Your task to perform on an android device: find snoozed emails in the gmail app Image 0: 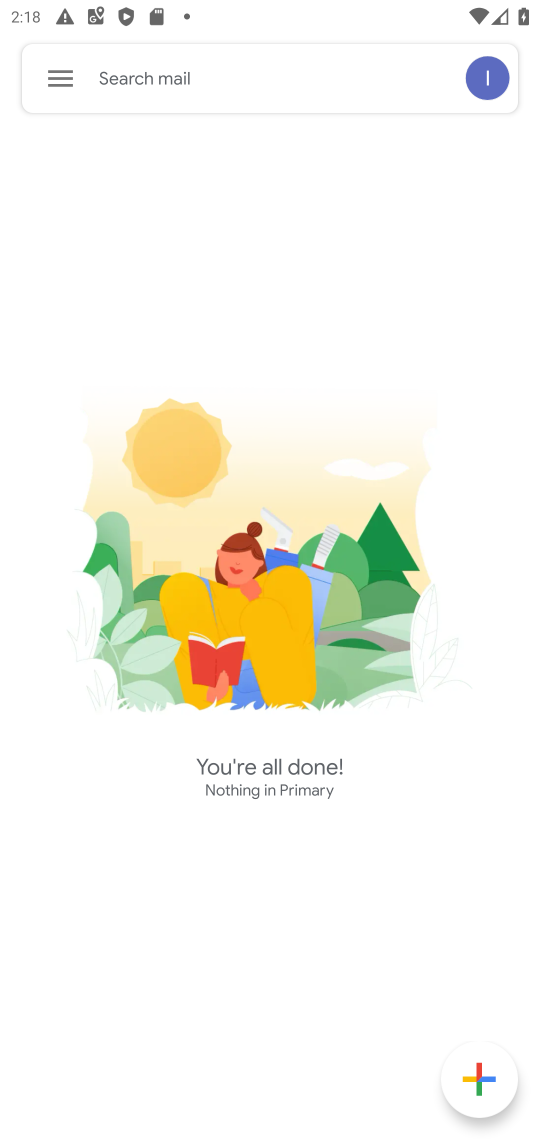
Step 0: press home button
Your task to perform on an android device: find snoozed emails in the gmail app Image 1: 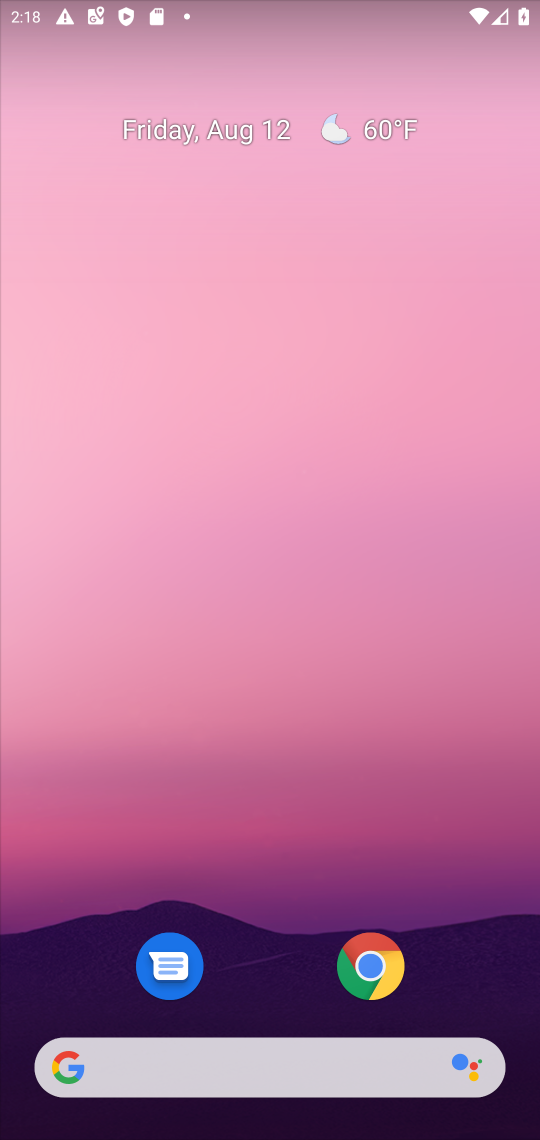
Step 1: drag from (303, 874) to (315, 0)
Your task to perform on an android device: find snoozed emails in the gmail app Image 2: 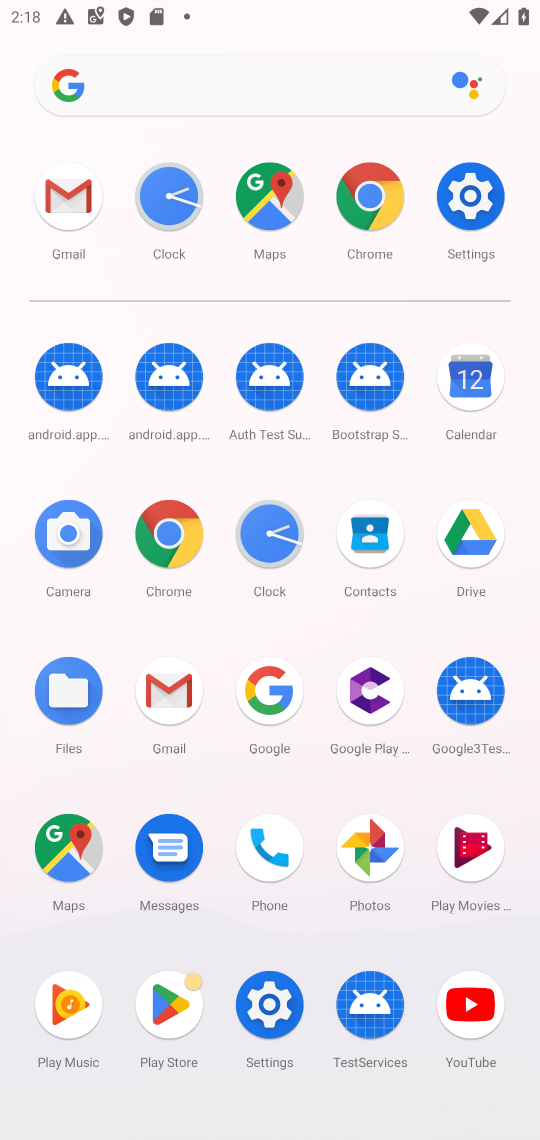
Step 2: click (144, 691)
Your task to perform on an android device: find snoozed emails in the gmail app Image 3: 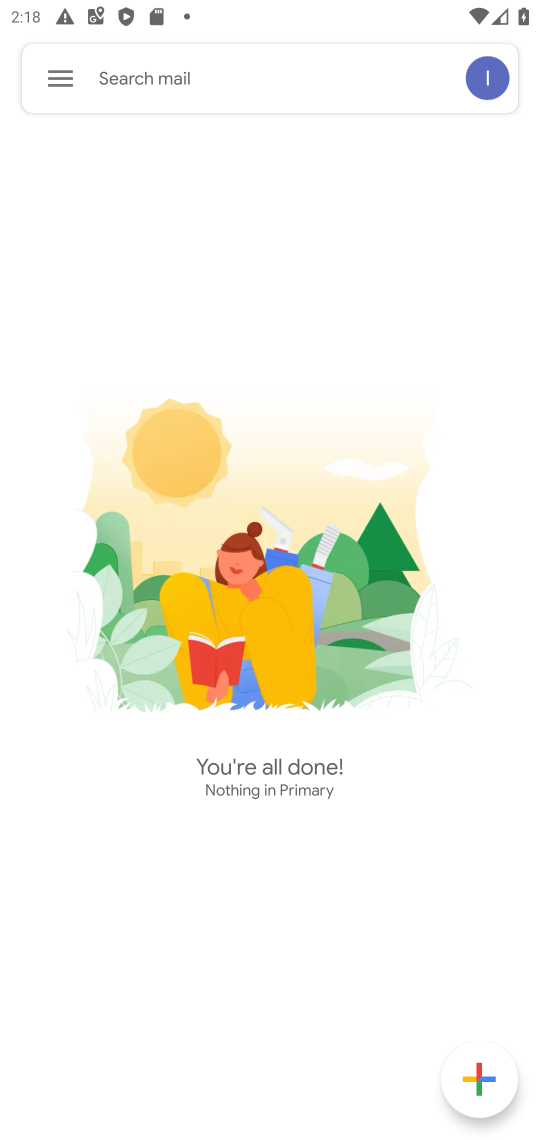
Step 3: click (63, 62)
Your task to perform on an android device: find snoozed emails in the gmail app Image 4: 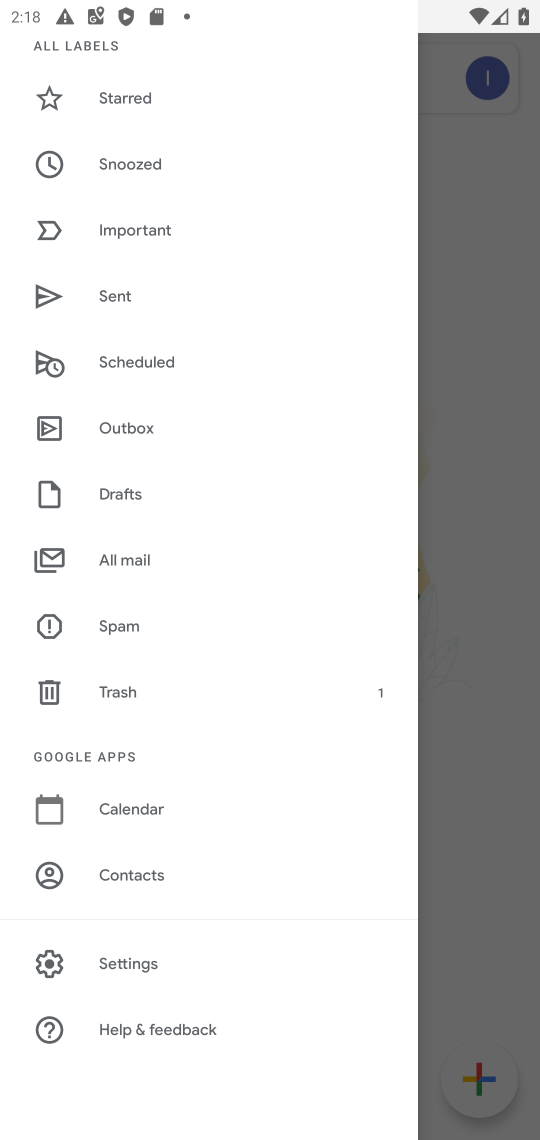
Step 4: drag from (113, 321) to (167, 857)
Your task to perform on an android device: find snoozed emails in the gmail app Image 5: 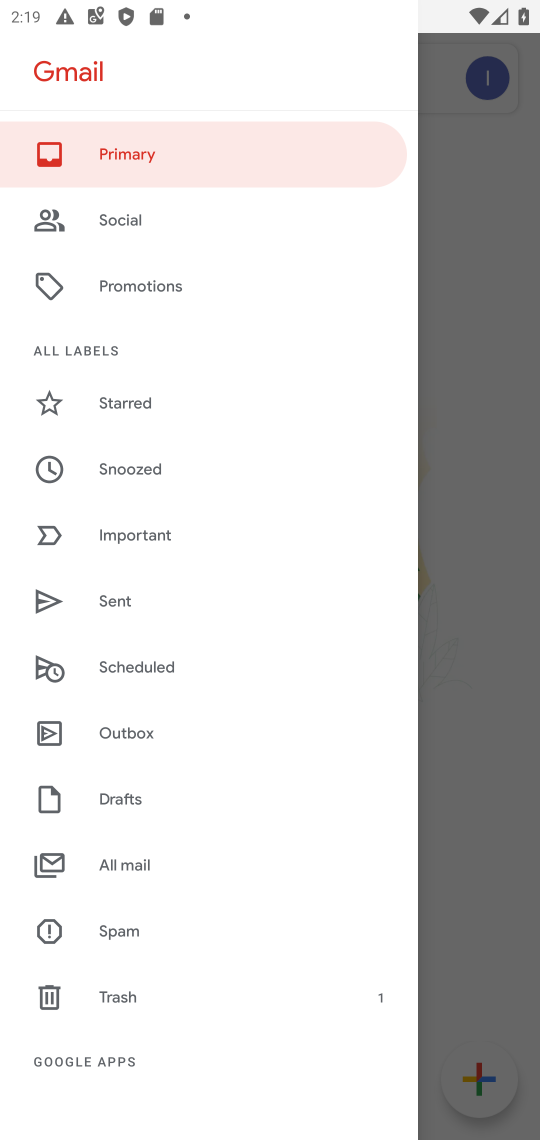
Step 5: click (117, 400)
Your task to perform on an android device: find snoozed emails in the gmail app Image 6: 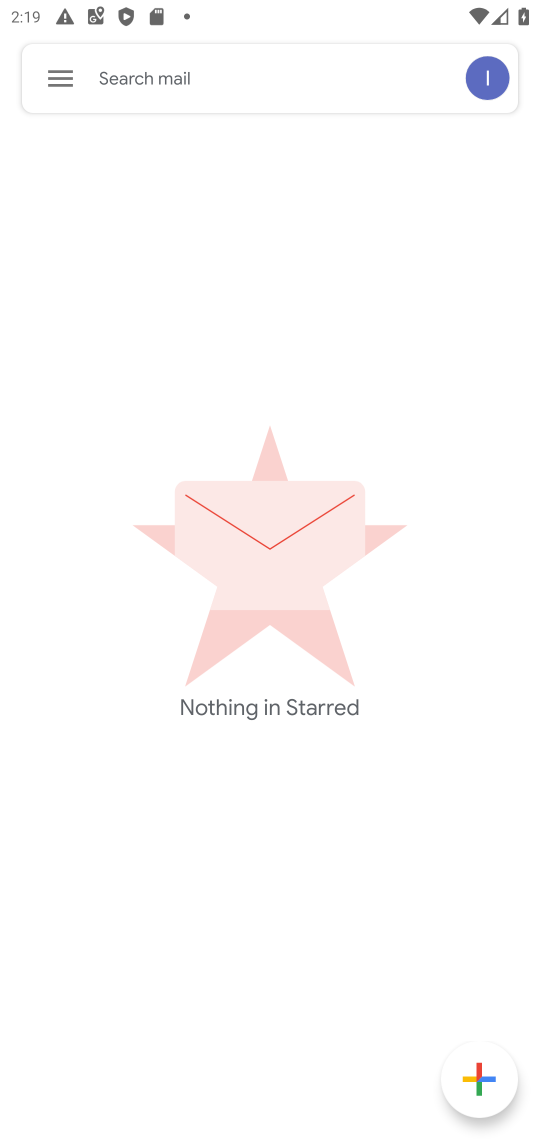
Step 6: task complete